Your task to perform on an android device: Open location settings Image 0: 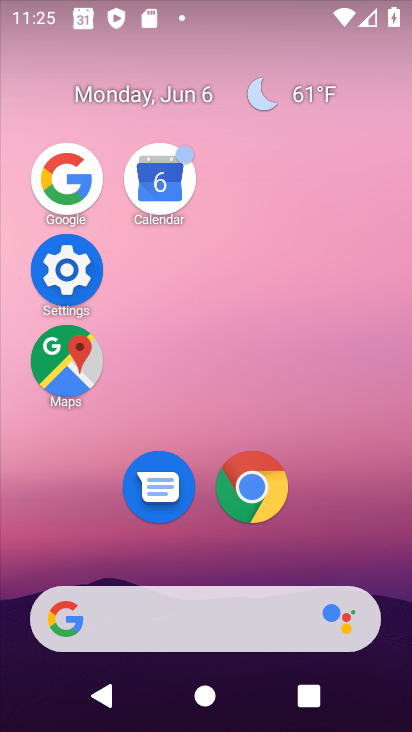
Step 0: click (89, 281)
Your task to perform on an android device: Open location settings Image 1: 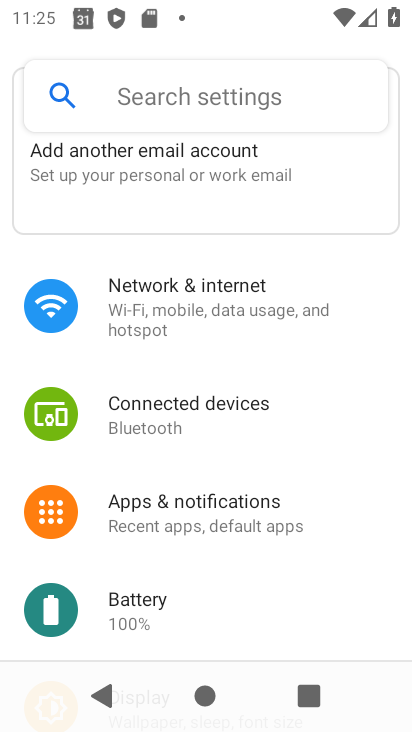
Step 1: drag from (265, 554) to (244, 178)
Your task to perform on an android device: Open location settings Image 2: 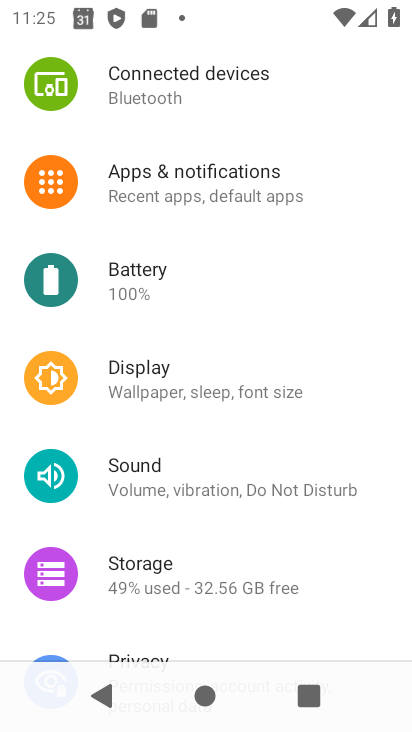
Step 2: drag from (283, 542) to (259, 154)
Your task to perform on an android device: Open location settings Image 3: 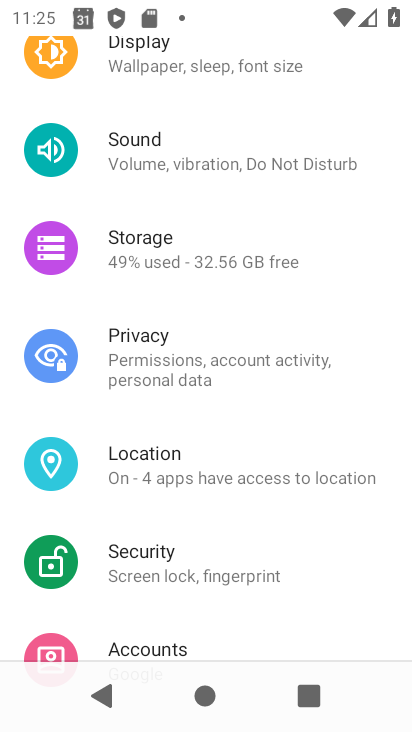
Step 3: click (280, 472)
Your task to perform on an android device: Open location settings Image 4: 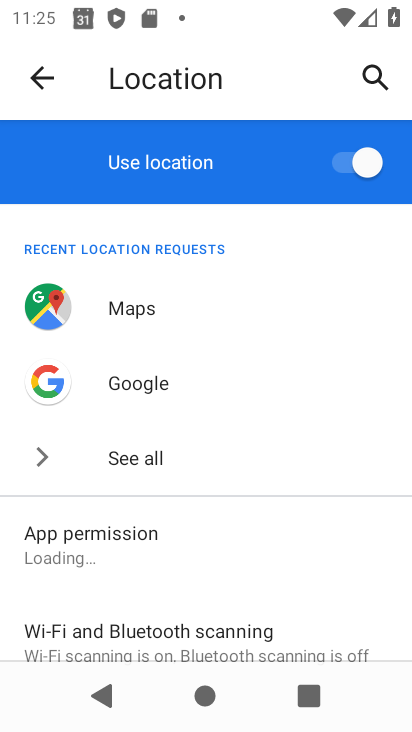
Step 4: task complete